Your task to perform on an android device: open app "Duolingo: language lessons" (install if not already installed) Image 0: 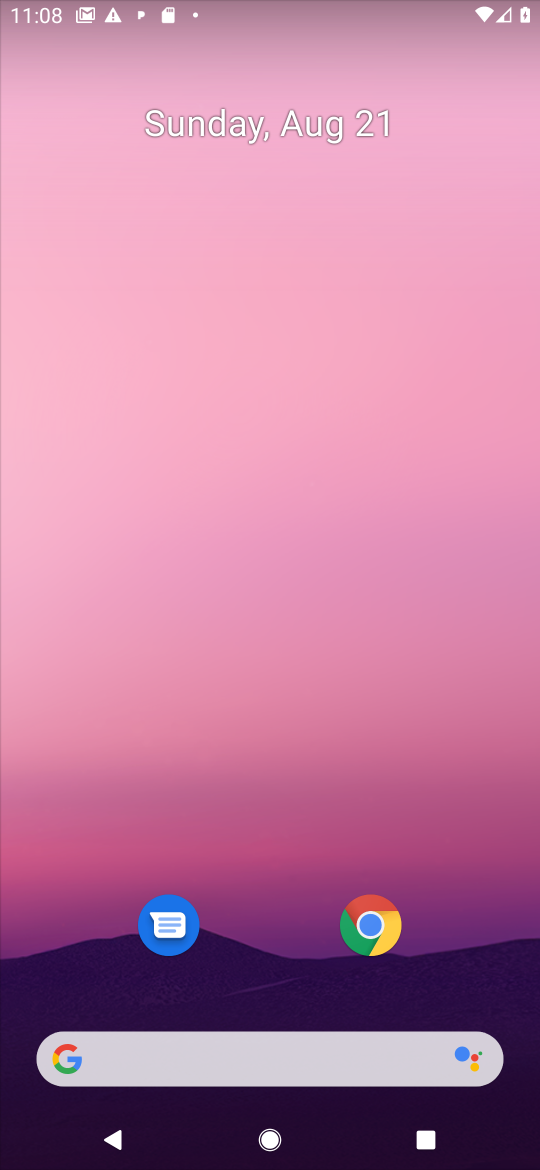
Step 0: drag from (258, 984) to (194, 51)
Your task to perform on an android device: open app "Duolingo: language lessons" (install if not already installed) Image 1: 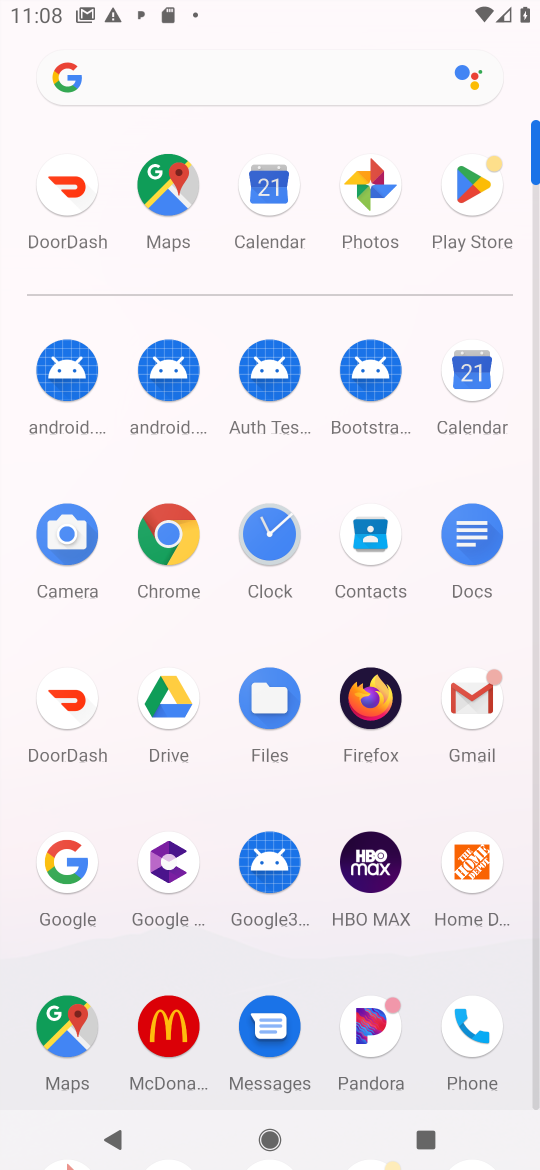
Step 1: click (466, 195)
Your task to perform on an android device: open app "Duolingo: language lessons" (install if not already installed) Image 2: 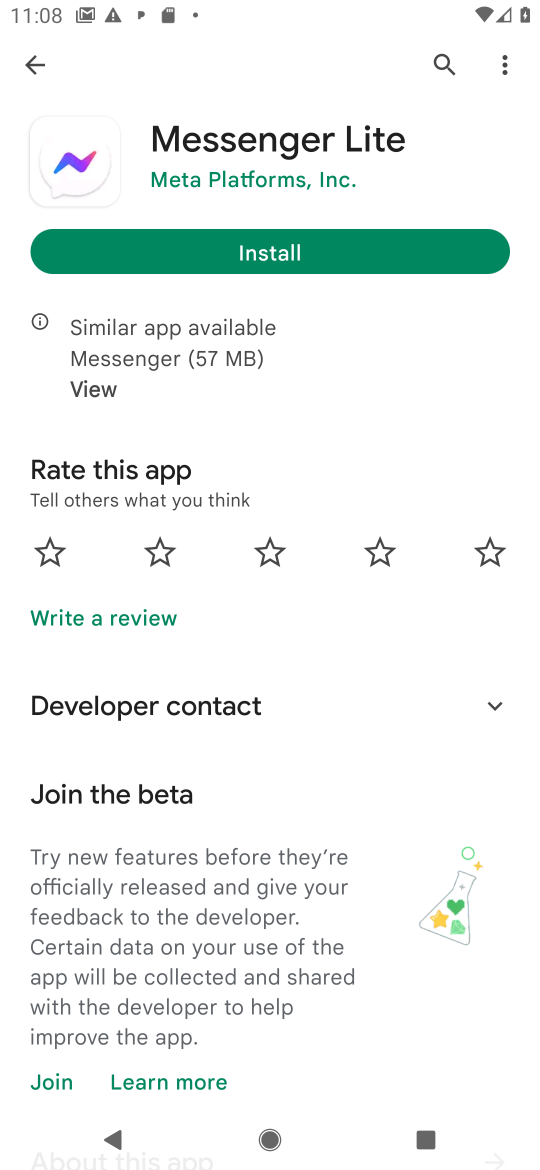
Step 2: click (446, 63)
Your task to perform on an android device: open app "Duolingo: language lessons" (install if not already installed) Image 3: 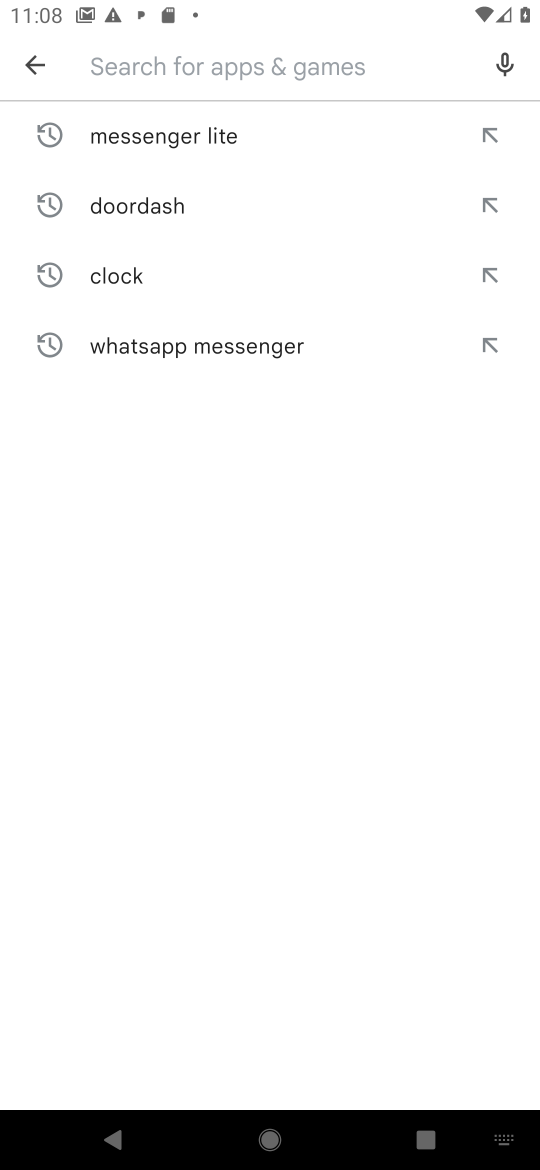
Step 3: click (143, 70)
Your task to perform on an android device: open app "Duolingo: language lessons" (install if not already installed) Image 4: 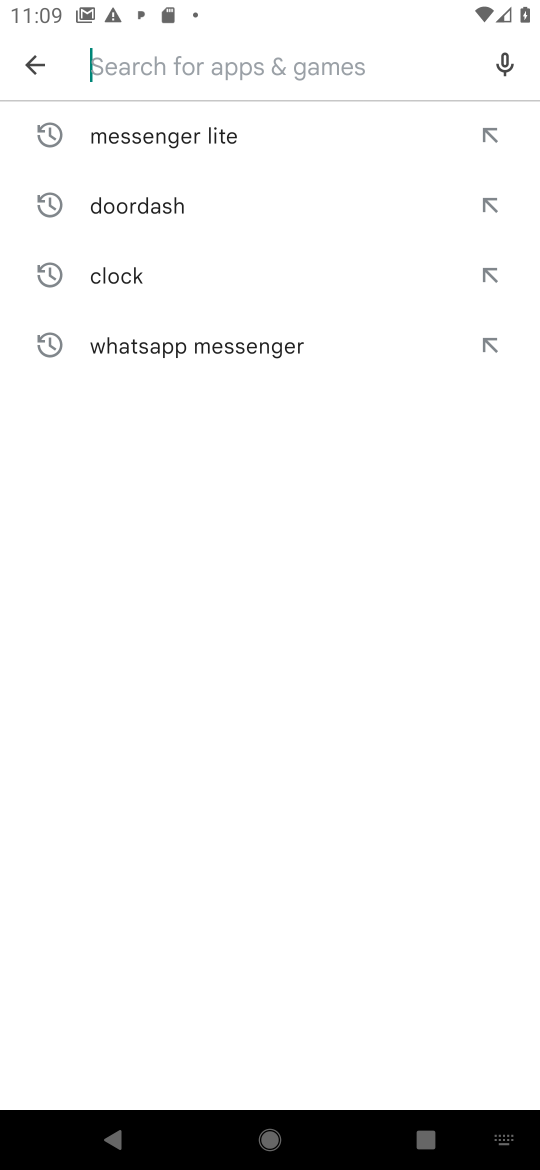
Step 4: click (166, 65)
Your task to perform on an android device: open app "Duolingo: language lessons" (install if not already installed) Image 5: 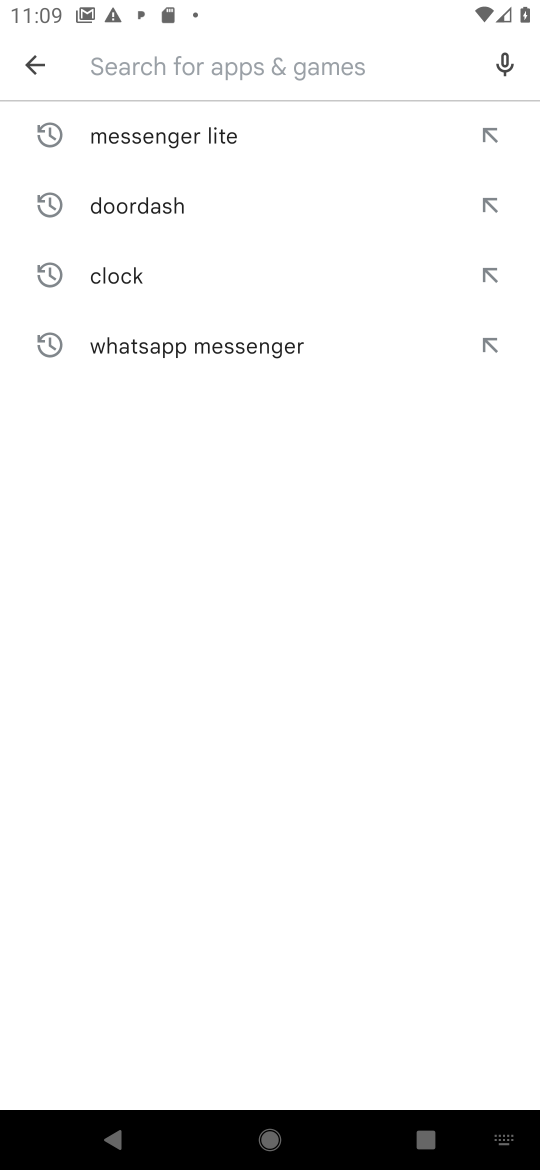
Step 5: click (192, 70)
Your task to perform on an android device: open app "Duolingo: language lessons" (install if not already installed) Image 6: 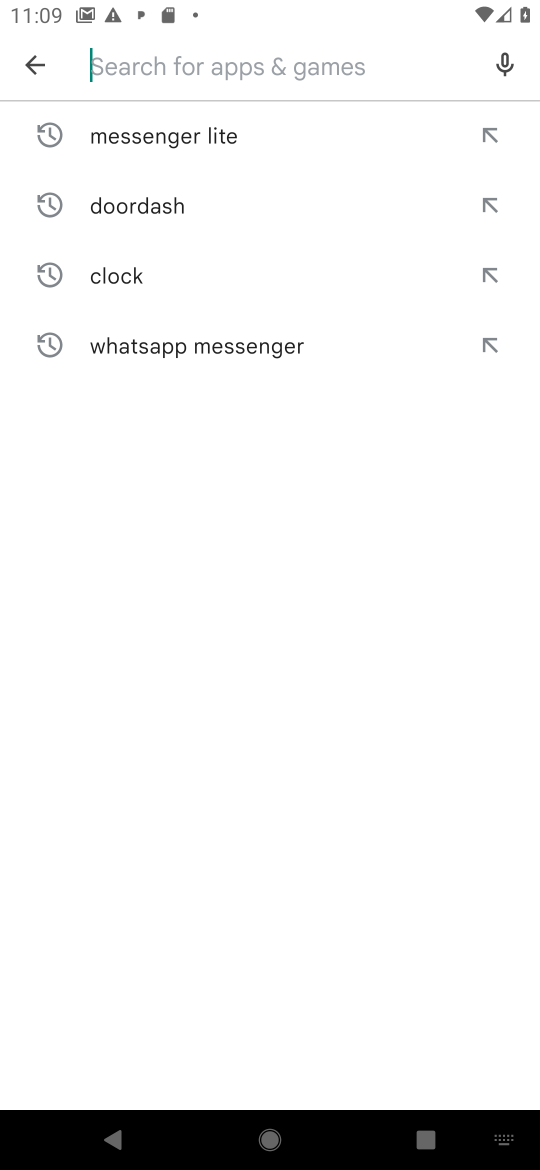
Step 6: type "Duolingo: language lessons"
Your task to perform on an android device: open app "Duolingo: language lessons" (install if not already installed) Image 7: 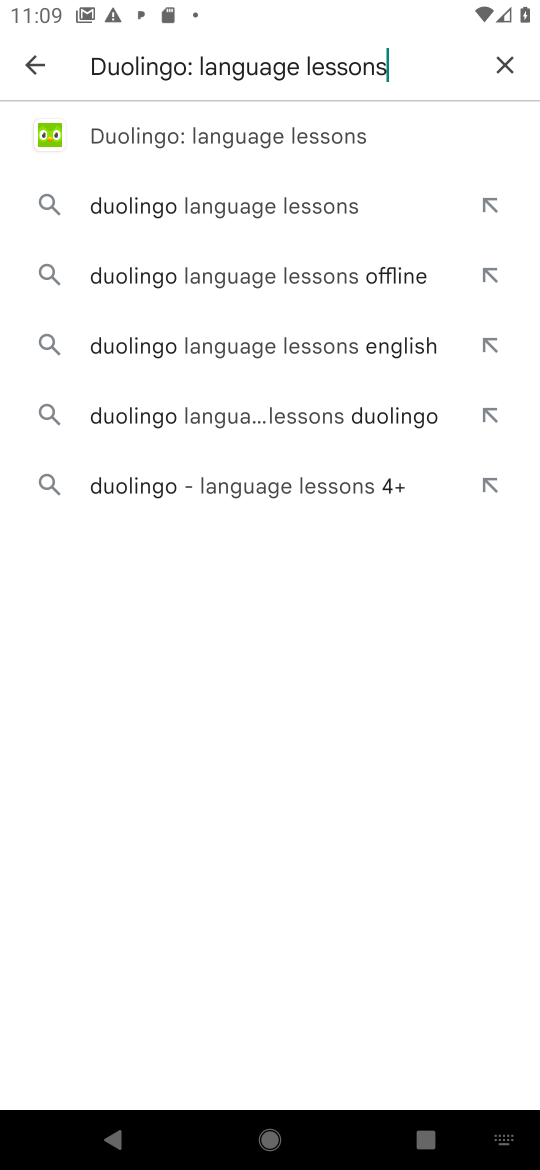
Step 7: click (303, 157)
Your task to perform on an android device: open app "Duolingo: language lessons" (install if not already installed) Image 8: 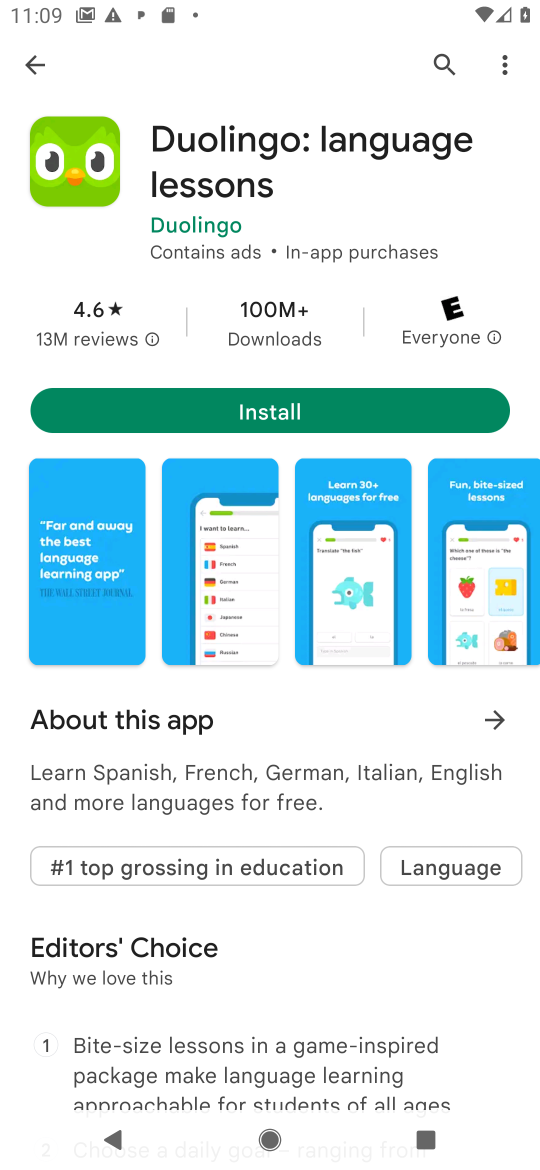
Step 8: click (281, 405)
Your task to perform on an android device: open app "Duolingo: language lessons" (install if not already installed) Image 9: 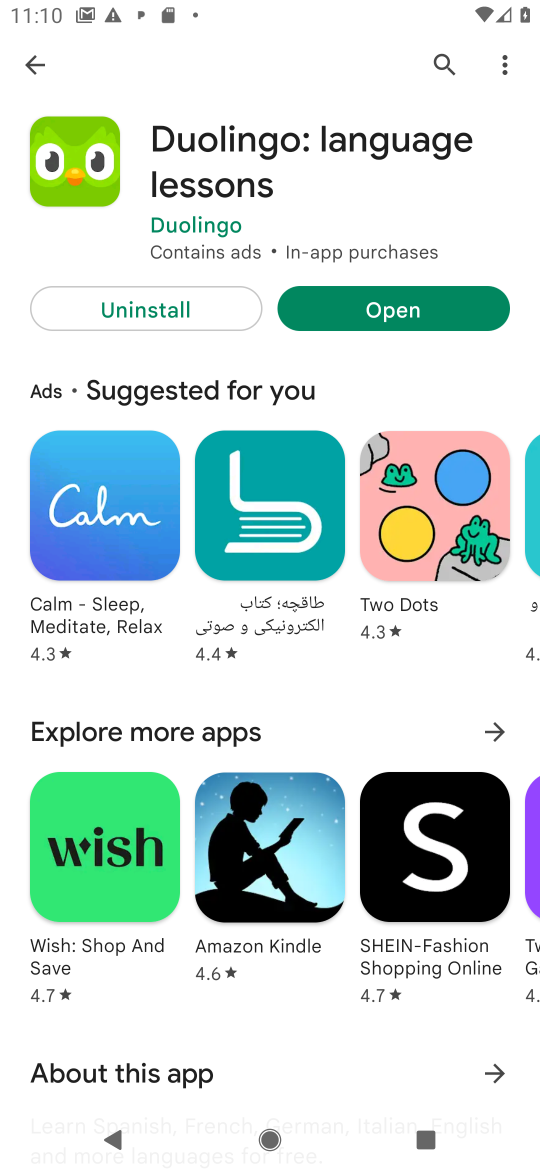
Step 9: click (420, 303)
Your task to perform on an android device: open app "Duolingo: language lessons" (install if not already installed) Image 10: 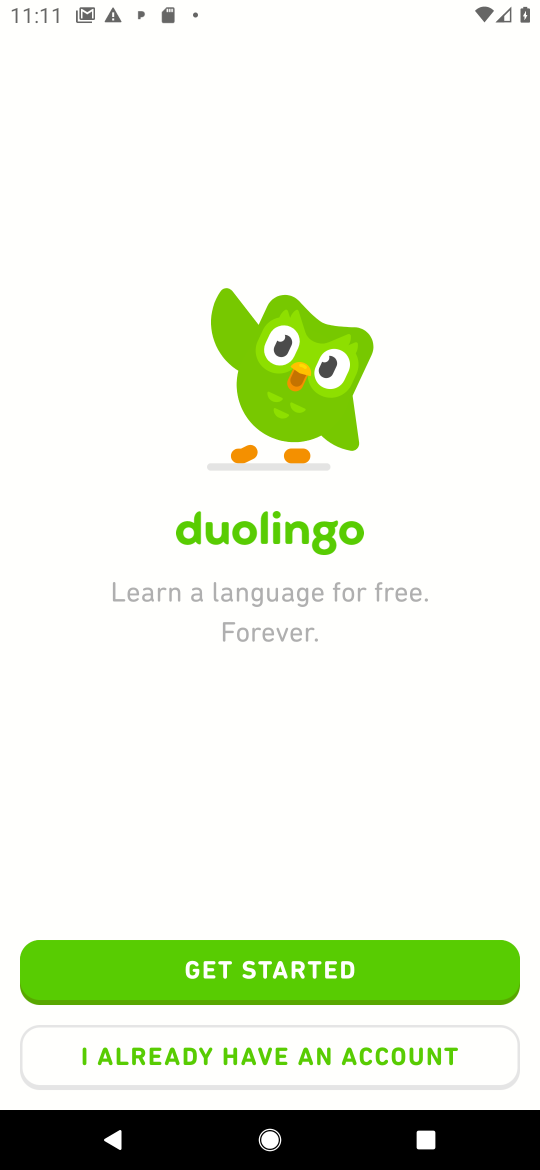
Step 10: task complete